Your task to perform on an android device: Go to Android settings Image 0: 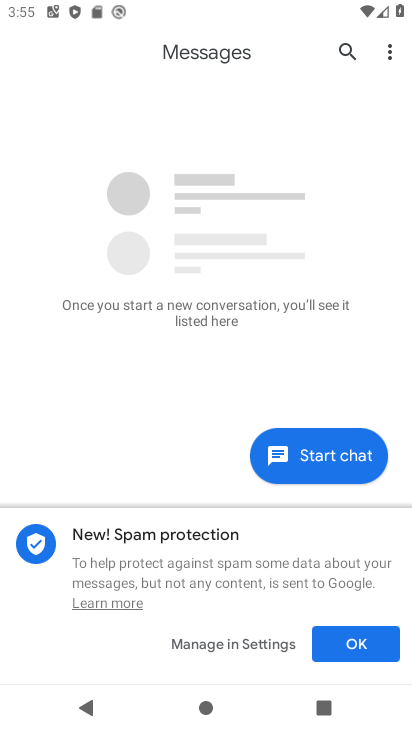
Step 0: drag from (271, 13) to (210, 611)
Your task to perform on an android device: Go to Android settings Image 1: 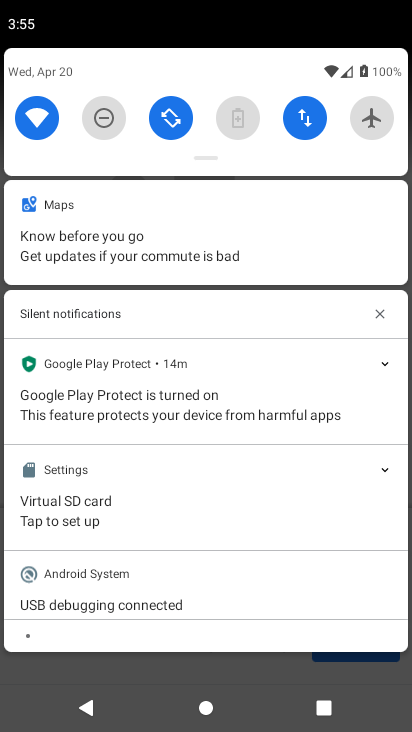
Step 1: drag from (241, 70) to (173, 683)
Your task to perform on an android device: Go to Android settings Image 2: 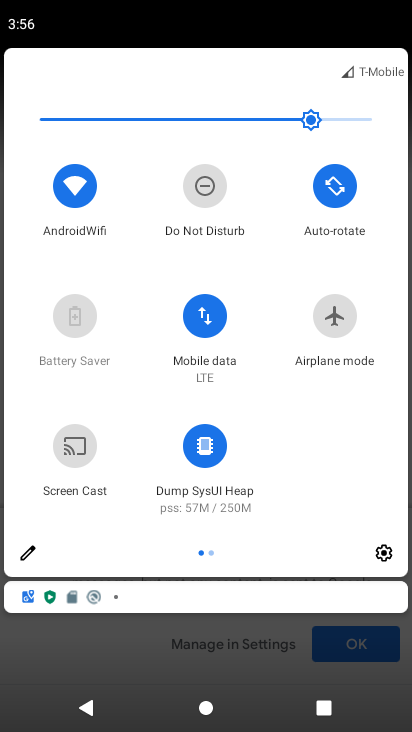
Step 2: click (382, 544)
Your task to perform on an android device: Go to Android settings Image 3: 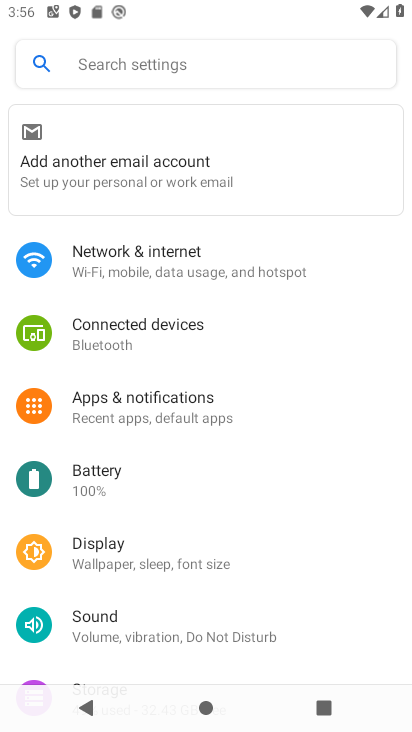
Step 3: drag from (165, 632) to (208, 79)
Your task to perform on an android device: Go to Android settings Image 4: 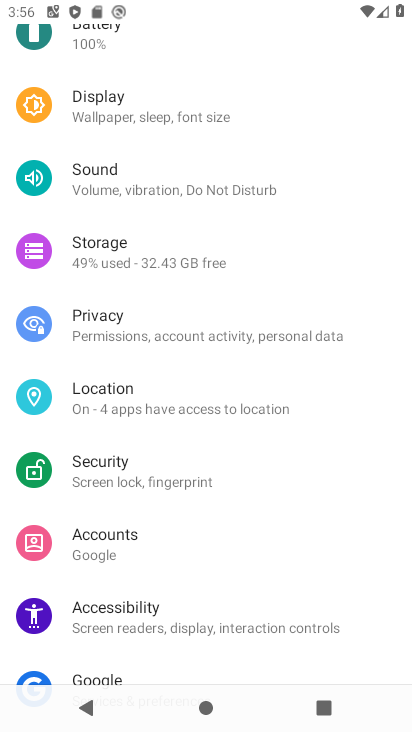
Step 4: drag from (140, 620) to (159, 30)
Your task to perform on an android device: Go to Android settings Image 5: 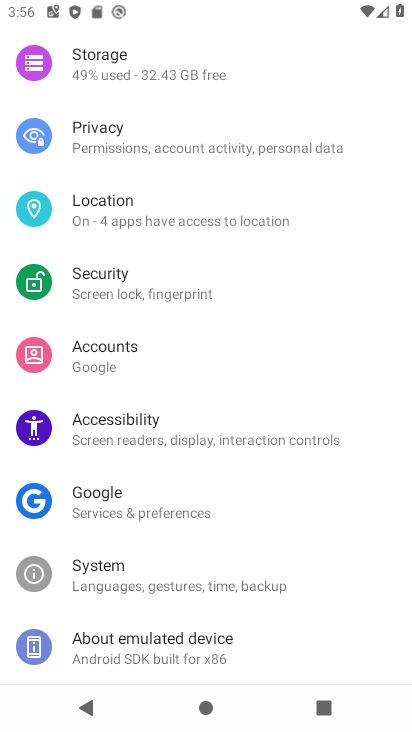
Step 5: drag from (91, 630) to (184, 22)
Your task to perform on an android device: Go to Android settings Image 6: 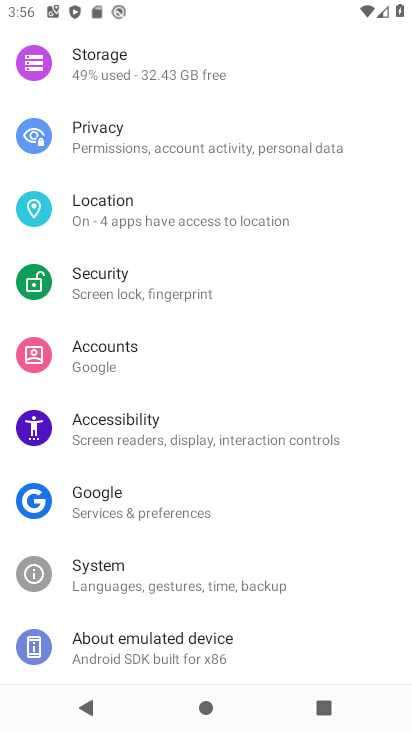
Step 6: click (191, 678)
Your task to perform on an android device: Go to Android settings Image 7: 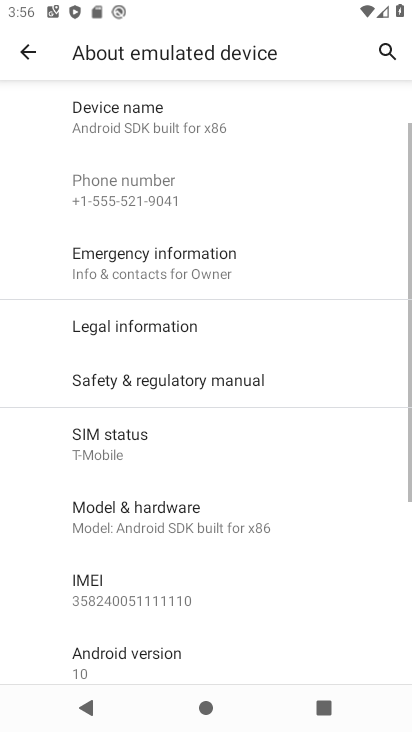
Step 7: click (217, 136)
Your task to perform on an android device: Go to Android settings Image 8: 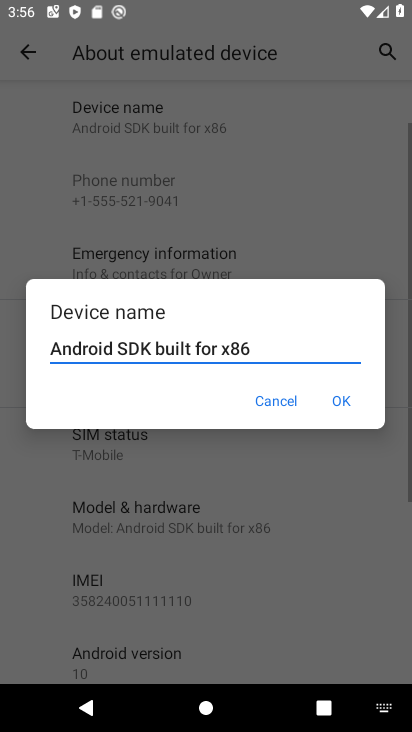
Step 8: click (276, 392)
Your task to perform on an android device: Go to Android settings Image 9: 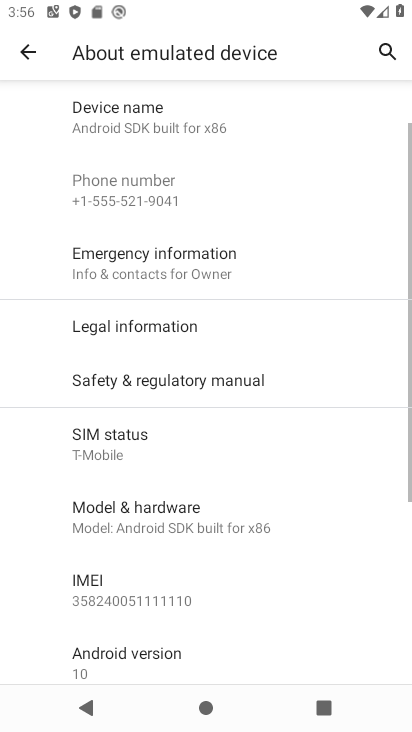
Step 9: task complete